Your task to perform on an android device: Open Google Maps Image 0: 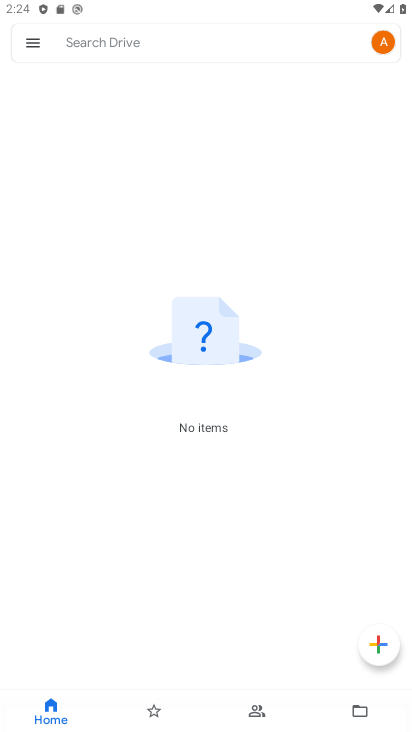
Step 0: press home button
Your task to perform on an android device: Open Google Maps Image 1: 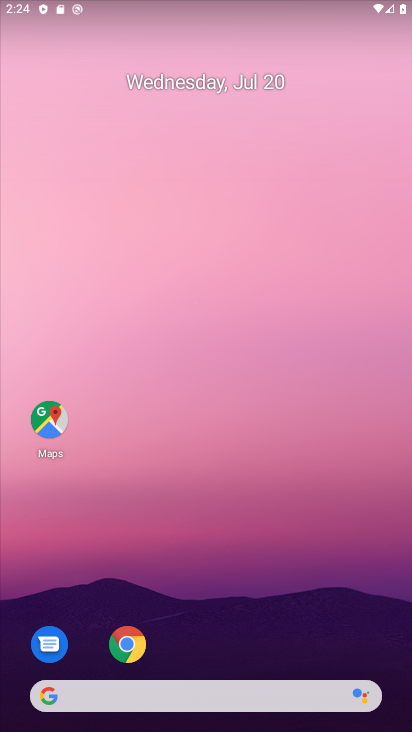
Step 1: click (50, 461)
Your task to perform on an android device: Open Google Maps Image 2: 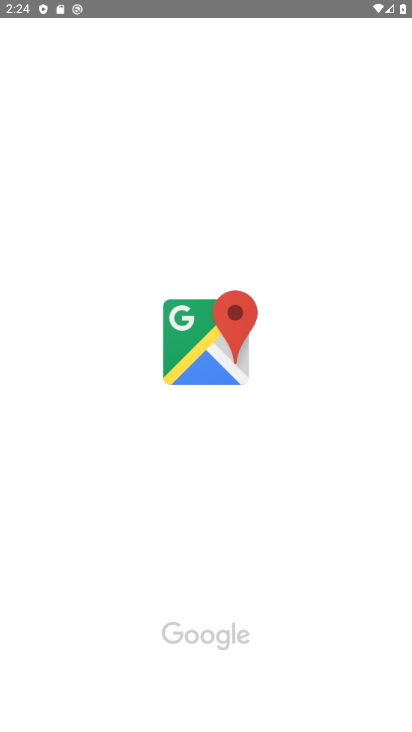
Step 2: task complete